Your task to perform on an android device: Do I have any events today? Image 0: 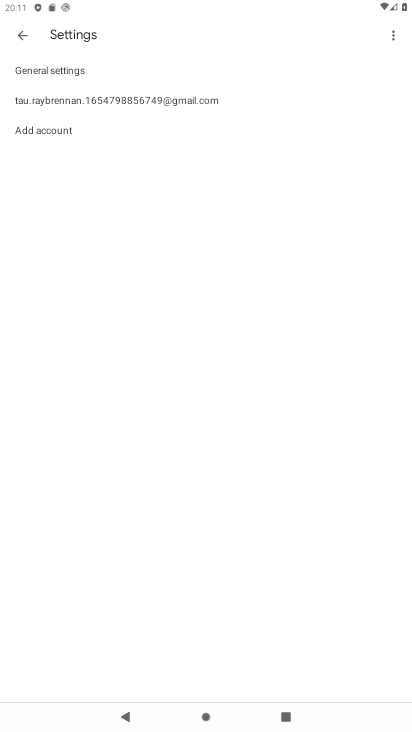
Step 0: press home button
Your task to perform on an android device: Do I have any events today? Image 1: 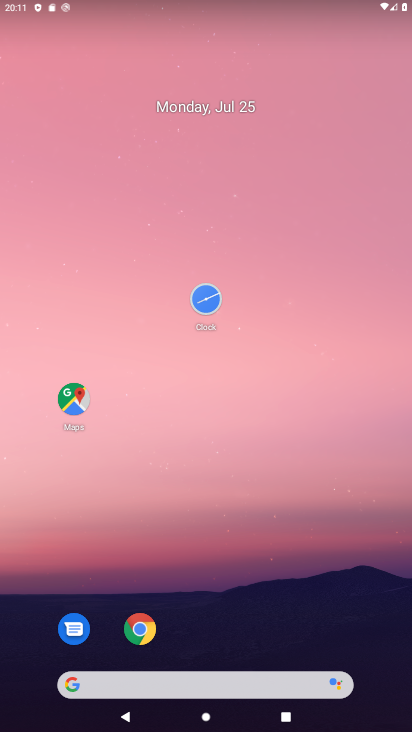
Step 1: drag from (191, 647) to (202, 203)
Your task to perform on an android device: Do I have any events today? Image 2: 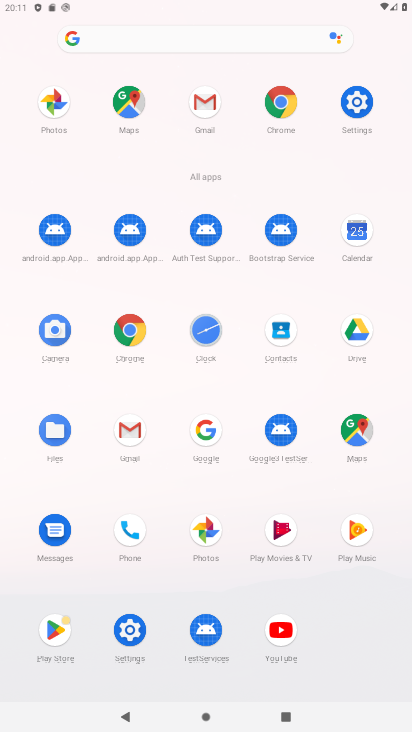
Step 2: click (351, 243)
Your task to perform on an android device: Do I have any events today? Image 3: 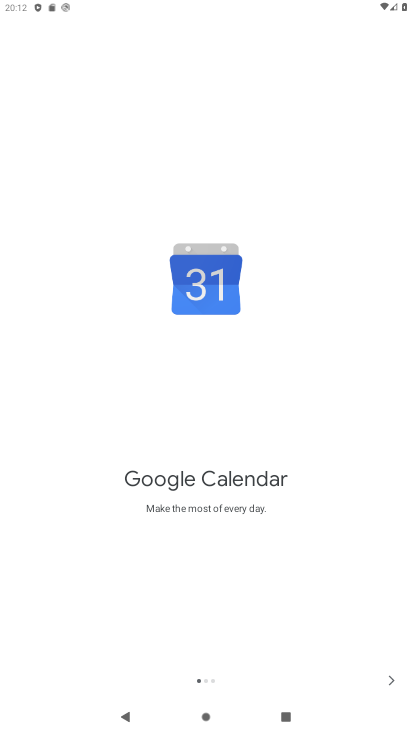
Step 3: click (387, 678)
Your task to perform on an android device: Do I have any events today? Image 4: 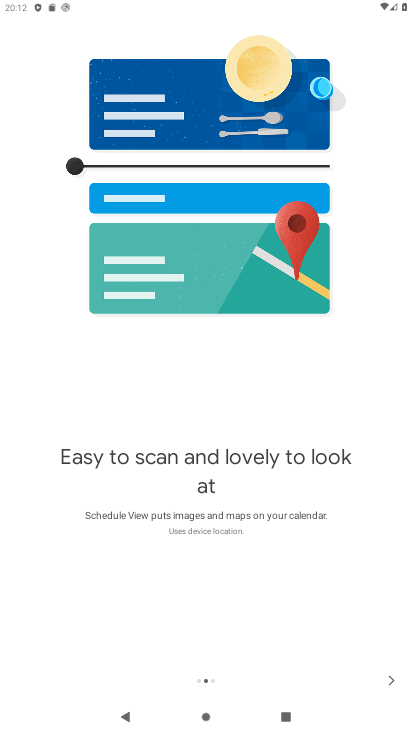
Step 4: click (386, 682)
Your task to perform on an android device: Do I have any events today? Image 5: 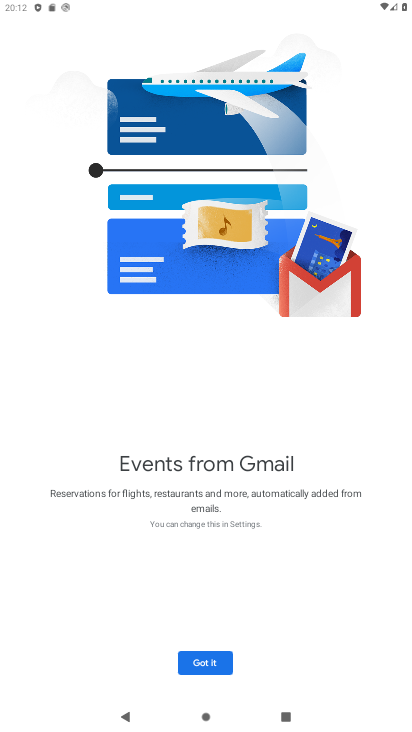
Step 5: click (206, 663)
Your task to perform on an android device: Do I have any events today? Image 6: 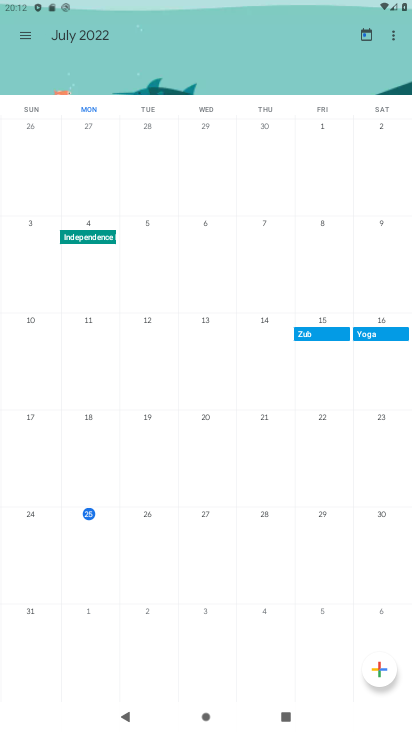
Step 6: click (25, 37)
Your task to perform on an android device: Do I have any events today? Image 7: 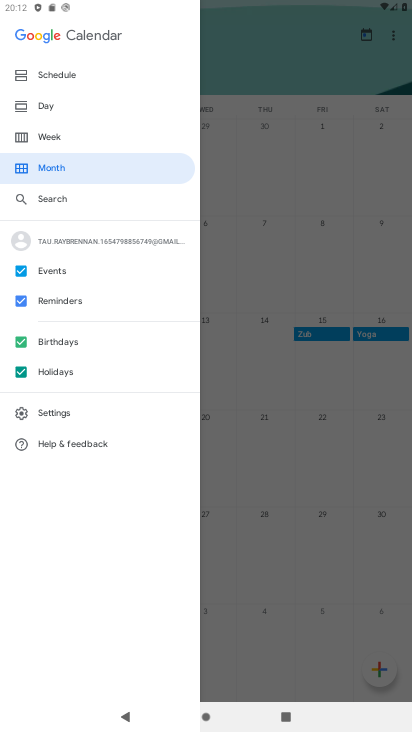
Step 7: click (48, 376)
Your task to perform on an android device: Do I have any events today? Image 8: 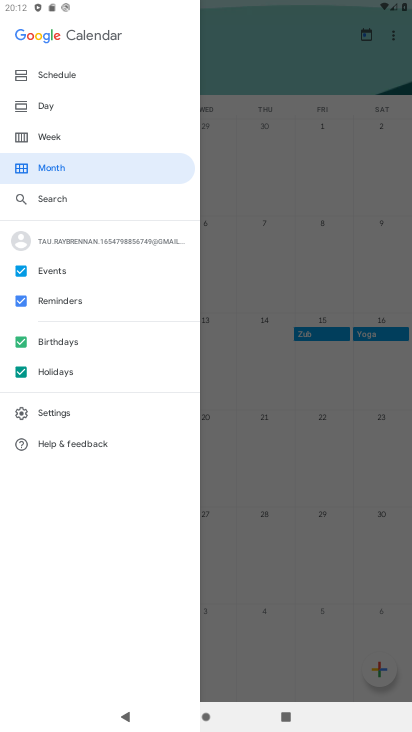
Step 8: click (58, 340)
Your task to perform on an android device: Do I have any events today? Image 9: 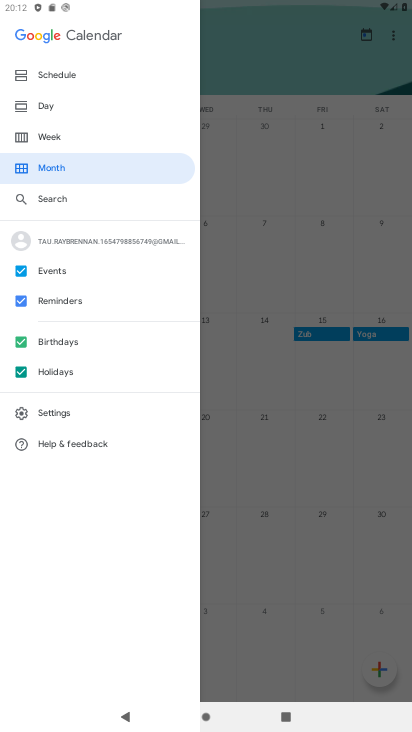
Step 9: click (59, 341)
Your task to perform on an android device: Do I have any events today? Image 10: 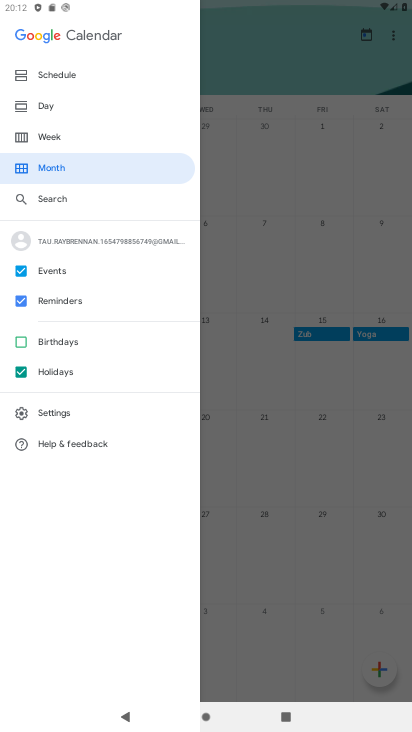
Step 10: click (35, 371)
Your task to perform on an android device: Do I have any events today? Image 11: 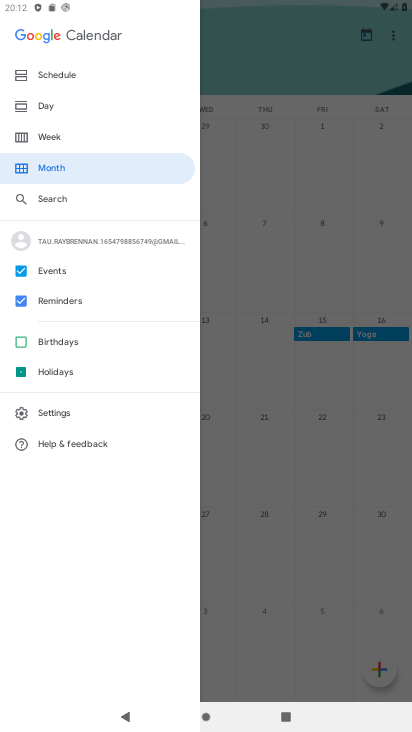
Step 11: click (30, 293)
Your task to perform on an android device: Do I have any events today? Image 12: 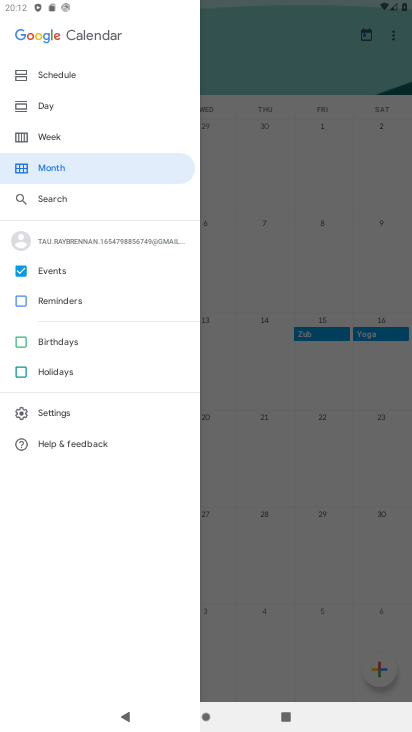
Step 12: click (41, 107)
Your task to perform on an android device: Do I have any events today? Image 13: 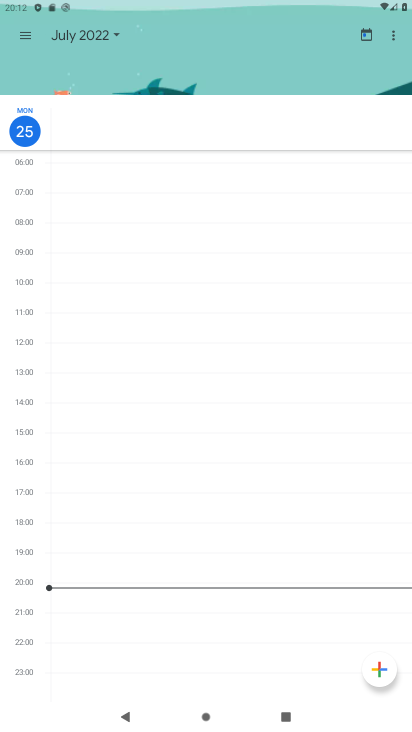
Step 13: task complete